Your task to perform on an android device: Is it going to rain tomorrow? Image 0: 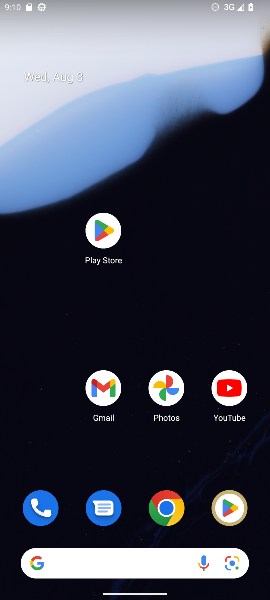
Step 0: click (168, 555)
Your task to perform on an android device: Is it going to rain tomorrow? Image 1: 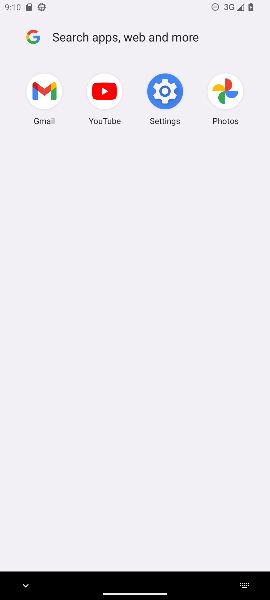
Step 1: press back button
Your task to perform on an android device: Is it going to rain tomorrow? Image 2: 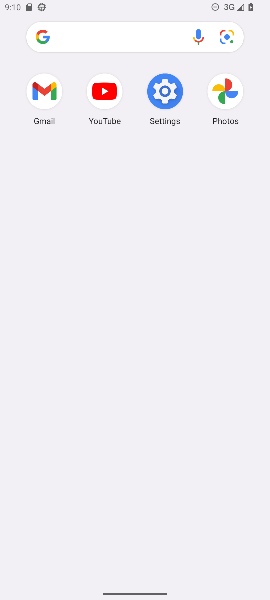
Step 2: press back button
Your task to perform on an android device: Is it going to rain tomorrow? Image 3: 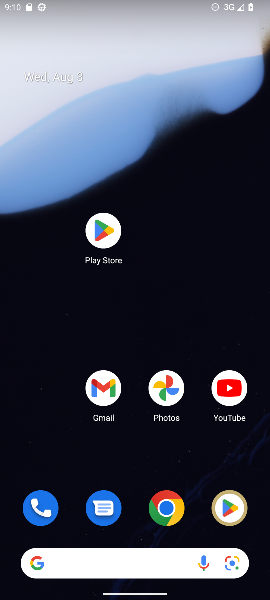
Step 3: drag from (150, 523) to (147, 62)
Your task to perform on an android device: Is it going to rain tomorrow? Image 4: 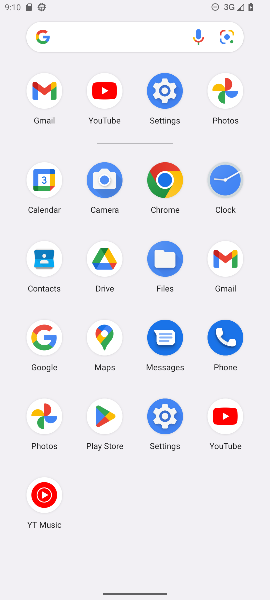
Step 4: click (39, 349)
Your task to perform on an android device: Is it going to rain tomorrow? Image 5: 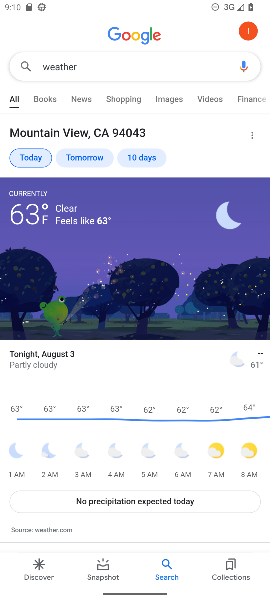
Step 5: click (76, 155)
Your task to perform on an android device: Is it going to rain tomorrow? Image 6: 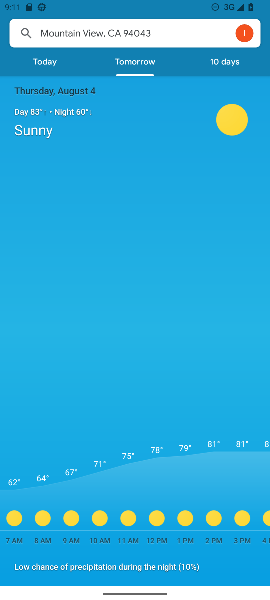
Step 6: task complete